Your task to perform on an android device: Turn off the flashlight Image 0: 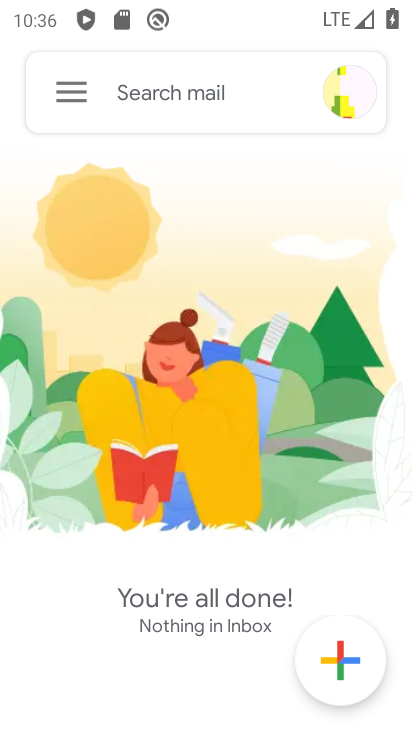
Step 0: drag from (323, 11) to (301, 385)
Your task to perform on an android device: Turn off the flashlight Image 1: 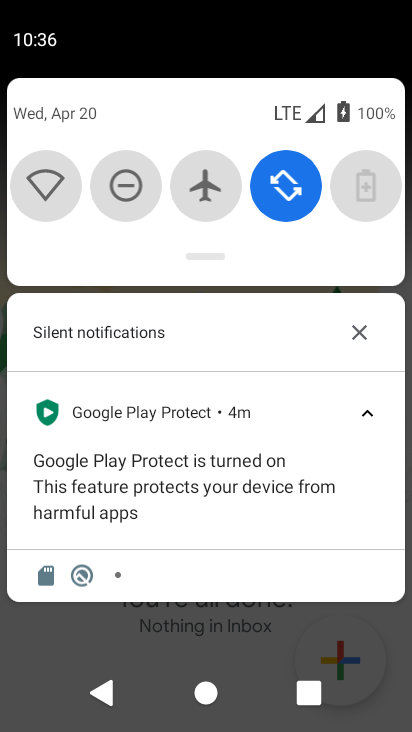
Step 1: drag from (253, 222) to (204, 558)
Your task to perform on an android device: Turn off the flashlight Image 2: 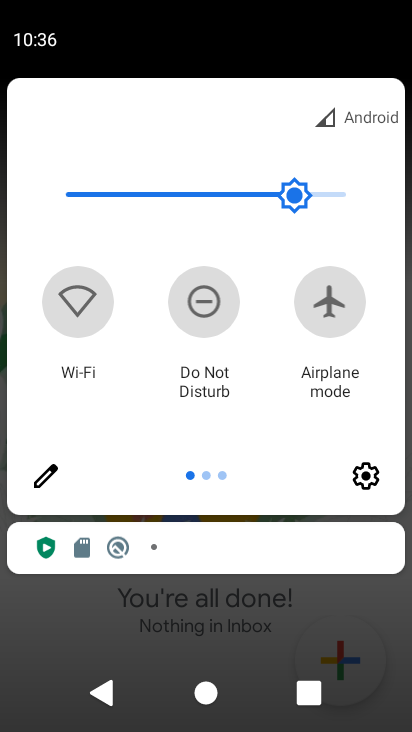
Step 2: drag from (388, 392) to (169, 370)
Your task to perform on an android device: Turn off the flashlight Image 3: 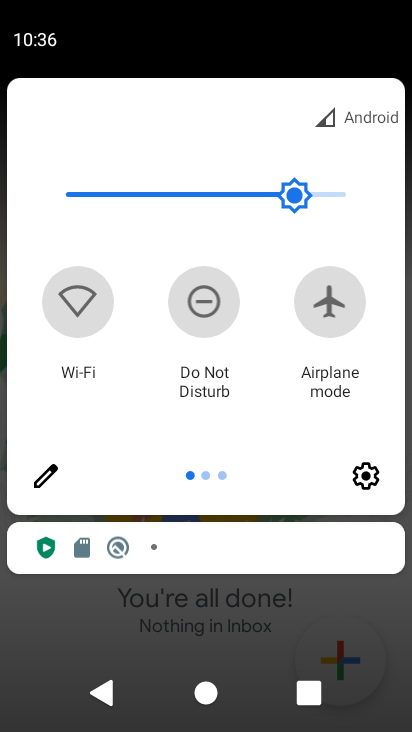
Step 3: drag from (383, 350) to (37, 297)
Your task to perform on an android device: Turn off the flashlight Image 4: 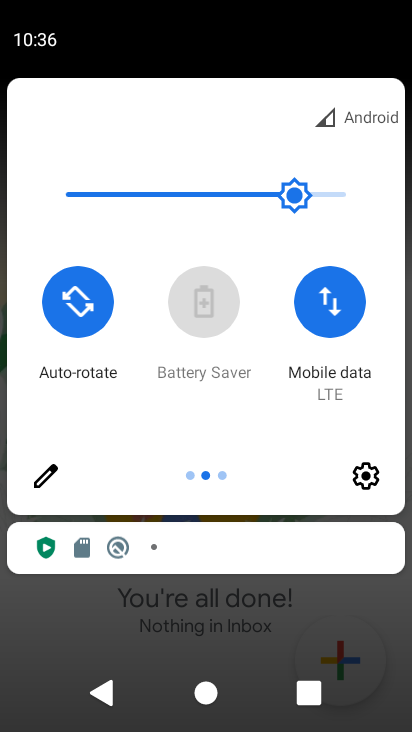
Step 4: drag from (394, 316) to (4, 312)
Your task to perform on an android device: Turn off the flashlight Image 5: 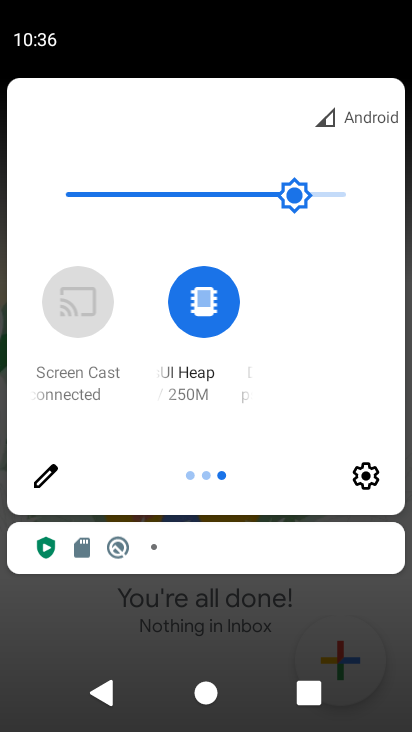
Step 5: click (57, 471)
Your task to perform on an android device: Turn off the flashlight Image 6: 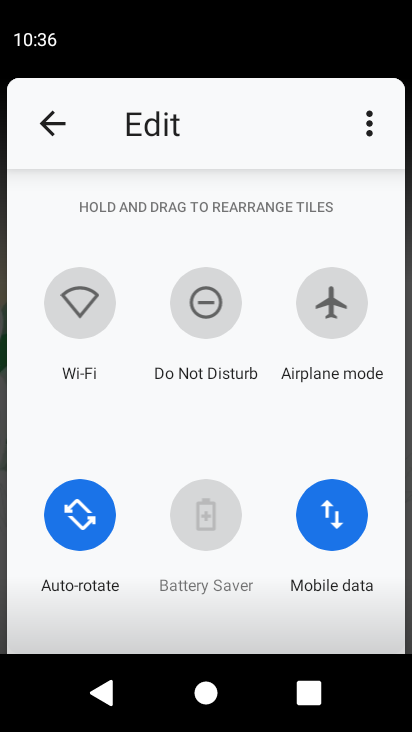
Step 6: task complete